Your task to perform on an android device: choose inbox layout in the gmail app Image 0: 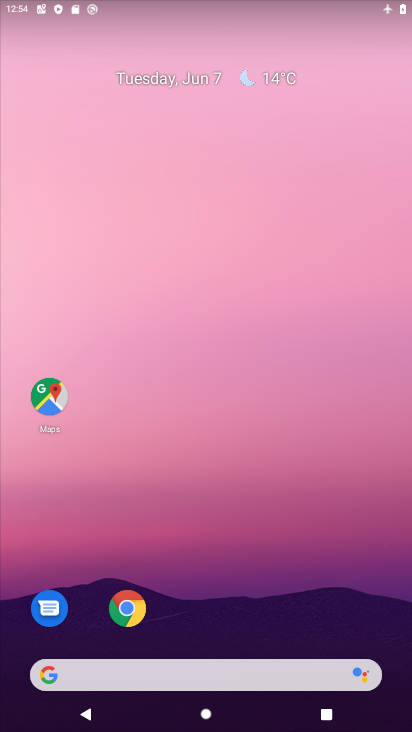
Step 0: drag from (219, 668) to (184, 161)
Your task to perform on an android device: choose inbox layout in the gmail app Image 1: 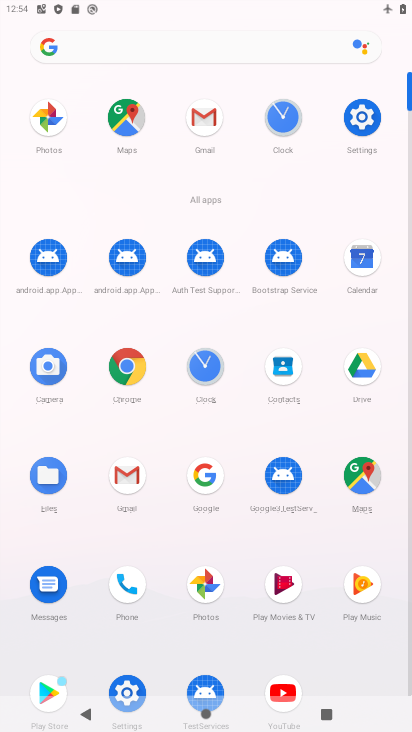
Step 1: click (202, 121)
Your task to perform on an android device: choose inbox layout in the gmail app Image 2: 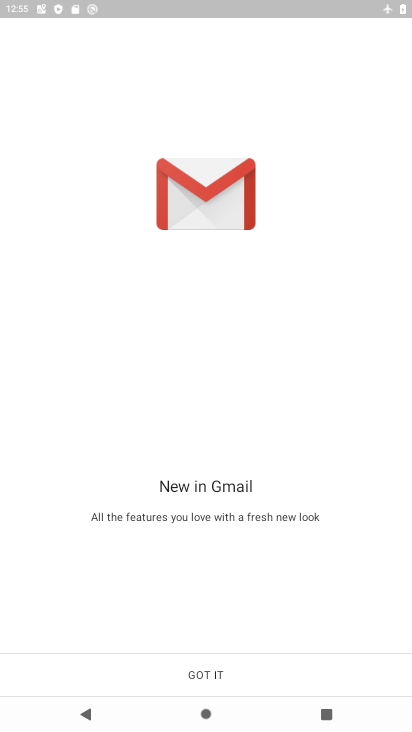
Step 2: click (233, 673)
Your task to perform on an android device: choose inbox layout in the gmail app Image 3: 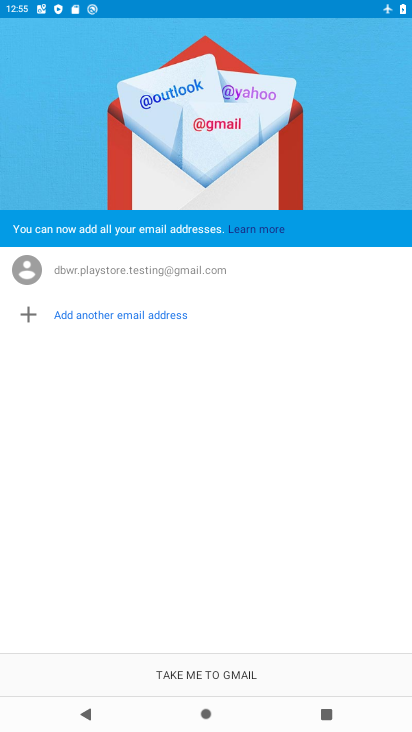
Step 3: click (235, 673)
Your task to perform on an android device: choose inbox layout in the gmail app Image 4: 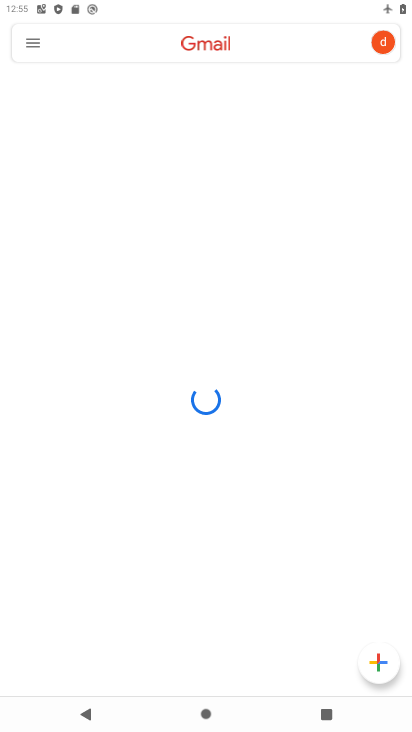
Step 4: click (36, 35)
Your task to perform on an android device: choose inbox layout in the gmail app Image 5: 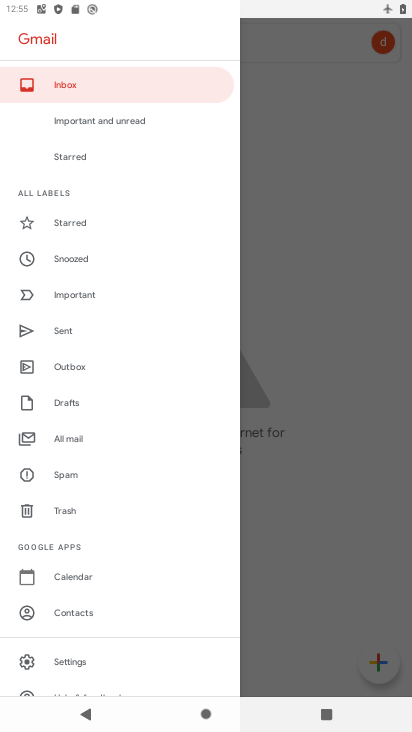
Step 5: drag from (97, 632) to (95, 194)
Your task to perform on an android device: choose inbox layout in the gmail app Image 6: 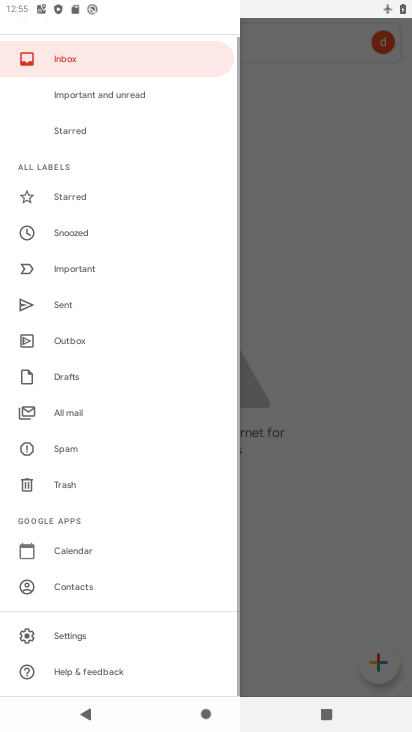
Step 6: click (65, 627)
Your task to perform on an android device: choose inbox layout in the gmail app Image 7: 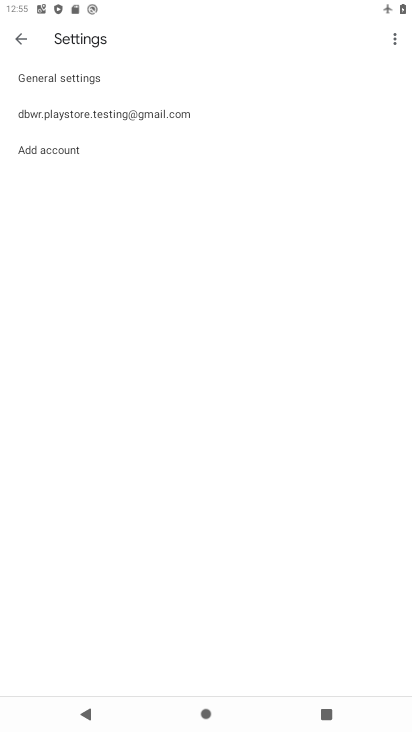
Step 7: click (135, 123)
Your task to perform on an android device: choose inbox layout in the gmail app Image 8: 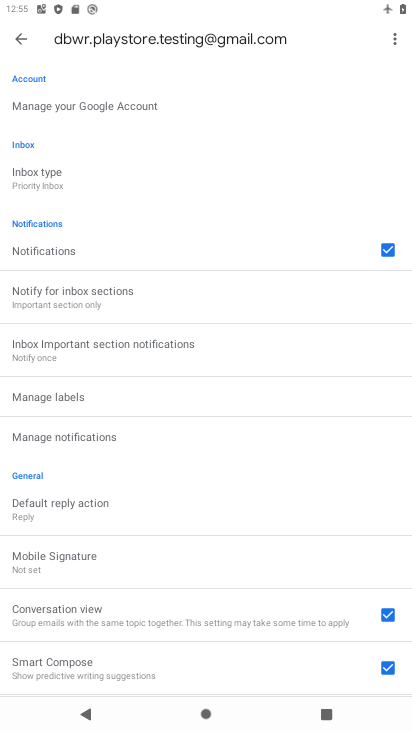
Step 8: click (51, 174)
Your task to perform on an android device: choose inbox layout in the gmail app Image 9: 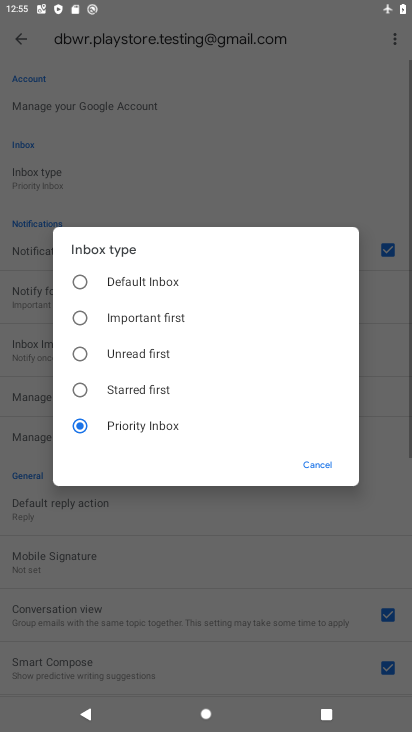
Step 9: task complete